Your task to perform on an android device: Search for flights from NYC to Mexico city Image 0: 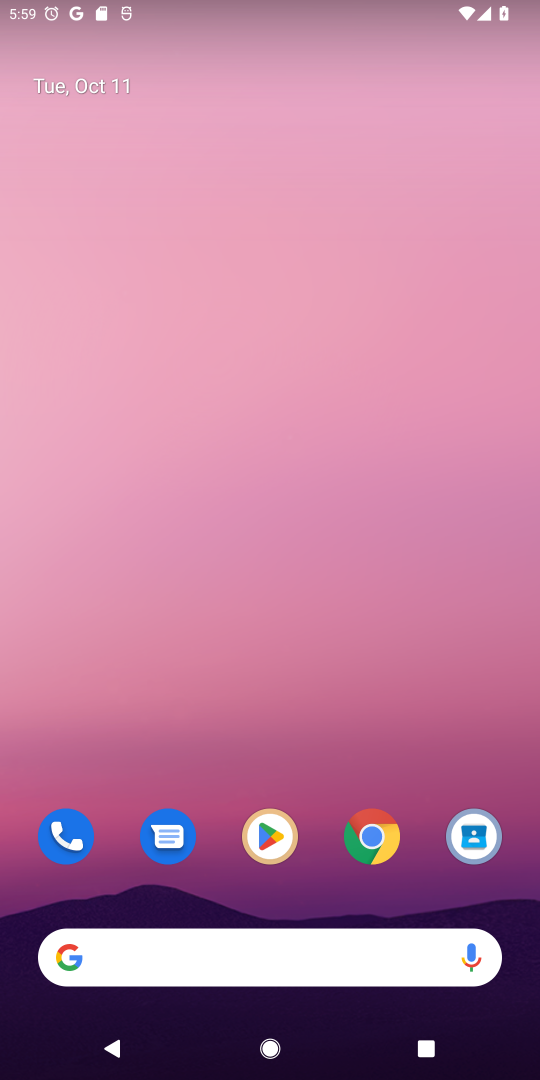
Step 0: click (173, 947)
Your task to perform on an android device: Search for flights from NYC to Mexico city Image 1: 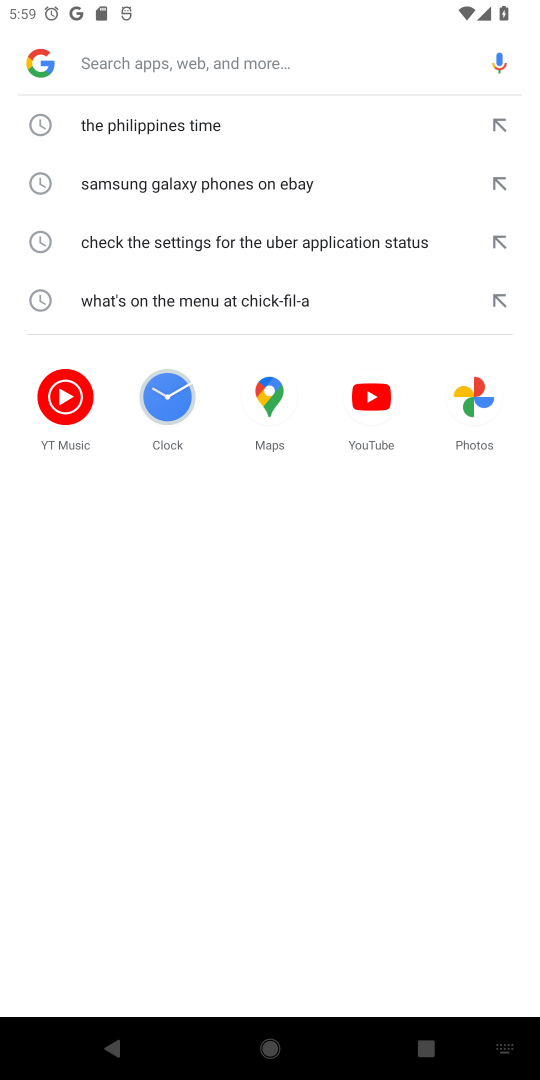
Step 1: type "flights from NYC to Mexico city"
Your task to perform on an android device: Search for flights from NYC to Mexico city Image 2: 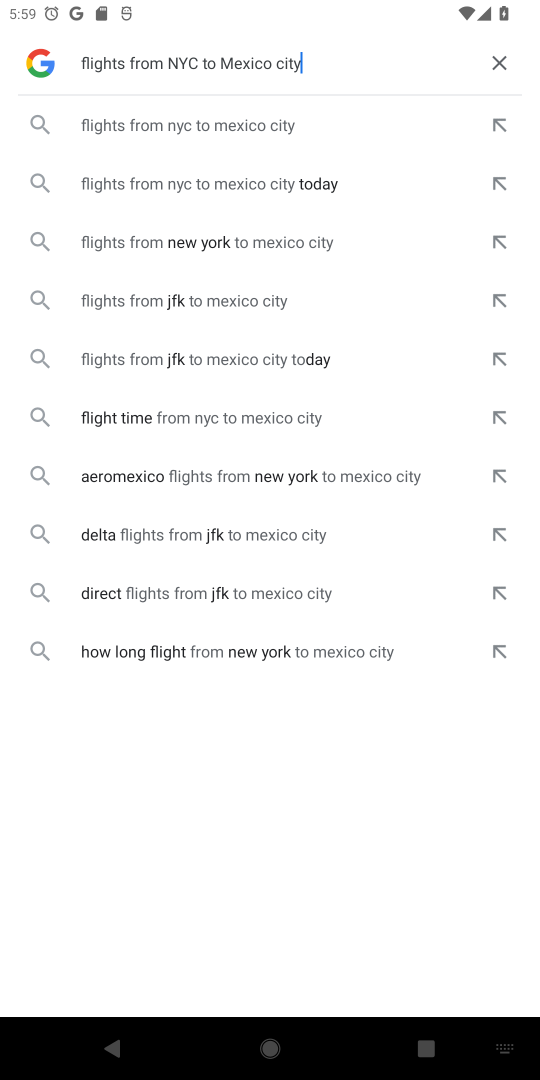
Step 2: click (163, 112)
Your task to perform on an android device: Search for flights from NYC to Mexico city Image 3: 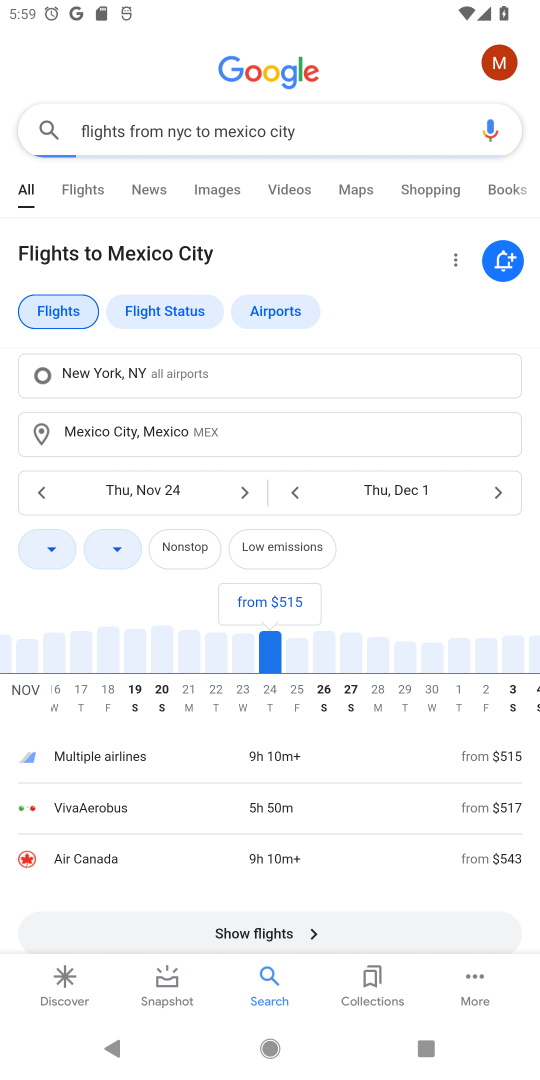
Step 3: task complete